Your task to perform on an android device: visit the assistant section in the google photos Image 0: 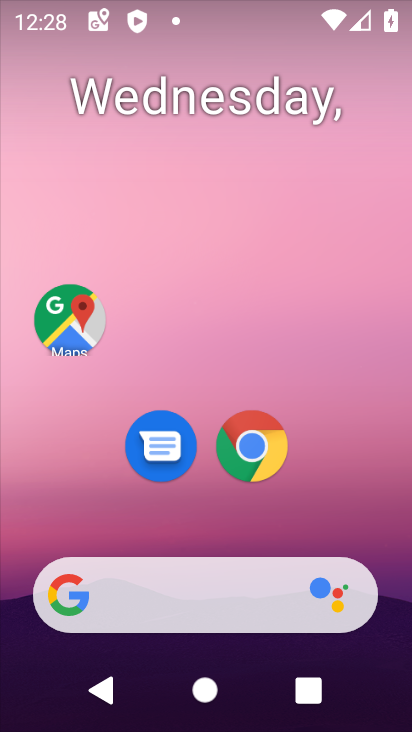
Step 0: drag from (213, 538) to (248, 150)
Your task to perform on an android device: visit the assistant section in the google photos Image 1: 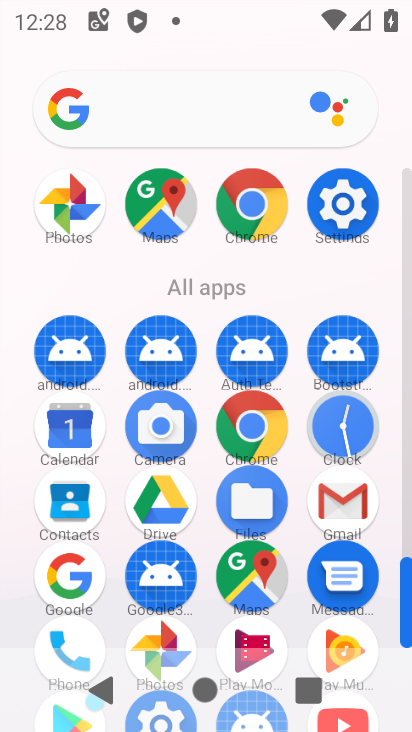
Step 1: drag from (218, 294) to (214, 77)
Your task to perform on an android device: visit the assistant section in the google photos Image 2: 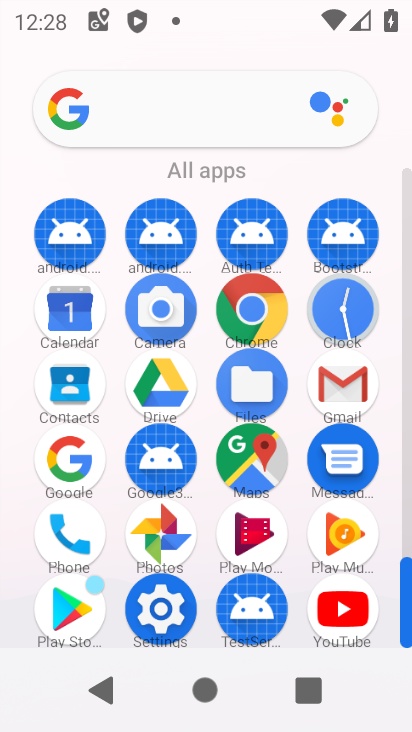
Step 2: click (171, 549)
Your task to perform on an android device: visit the assistant section in the google photos Image 3: 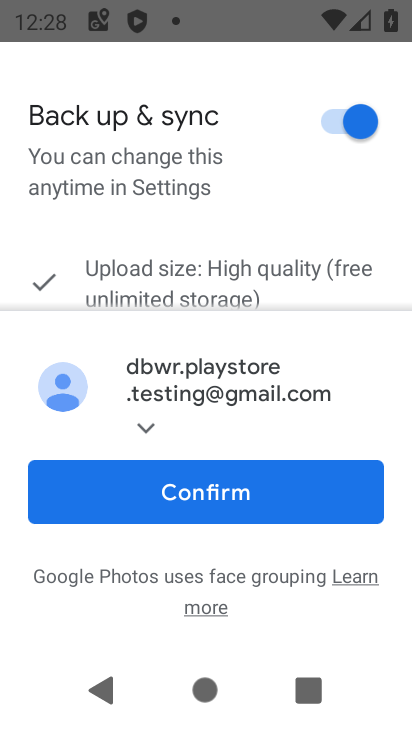
Step 3: click (296, 510)
Your task to perform on an android device: visit the assistant section in the google photos Image 4: 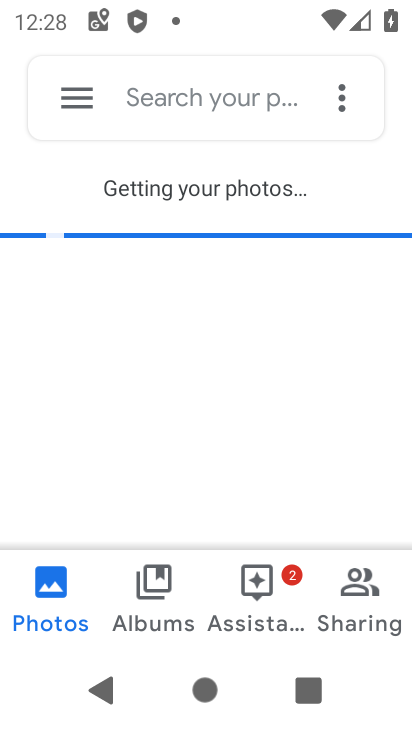
Step 4: click (251, 611)
Your task to perform on an android device: visit the assistant section in the google photos Image 5: 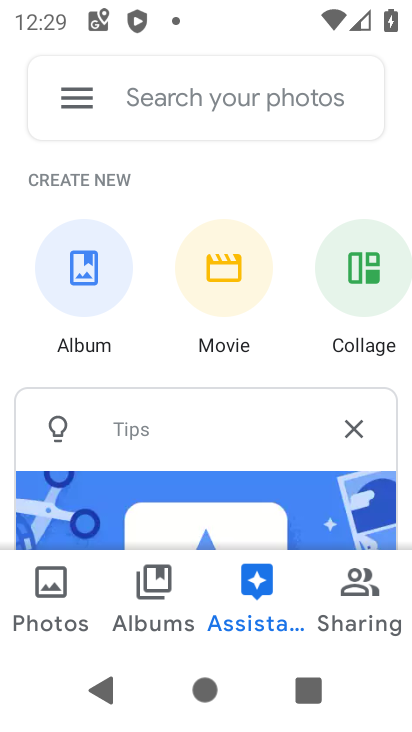
Step 5: task complete